Your task to perform on an android device: Is it going to rain this weekend? Image 0: 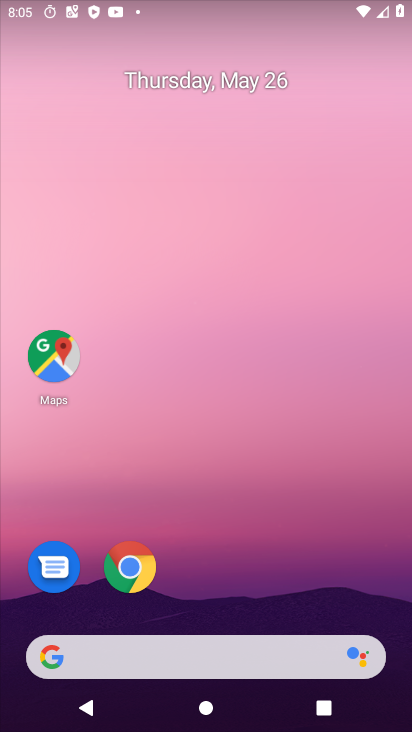
Step 0: click (57, 658)
Your task to perform on an android device: Is it going to rain this weekend? Image 1: 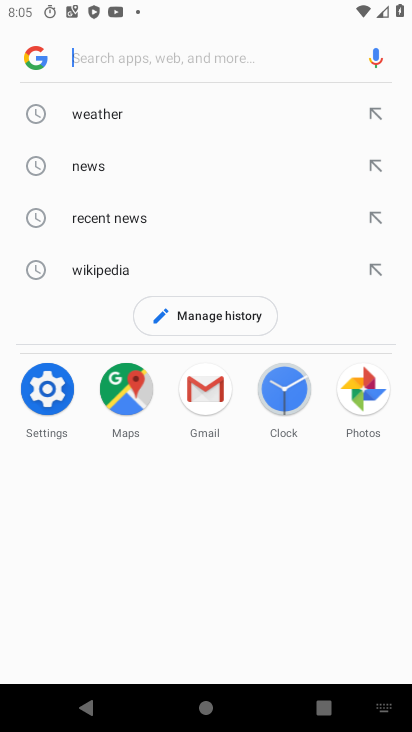
Step 1: click (103, 113)
Your task to perform on an android device: Is it going to rain this weekend? Image 2: 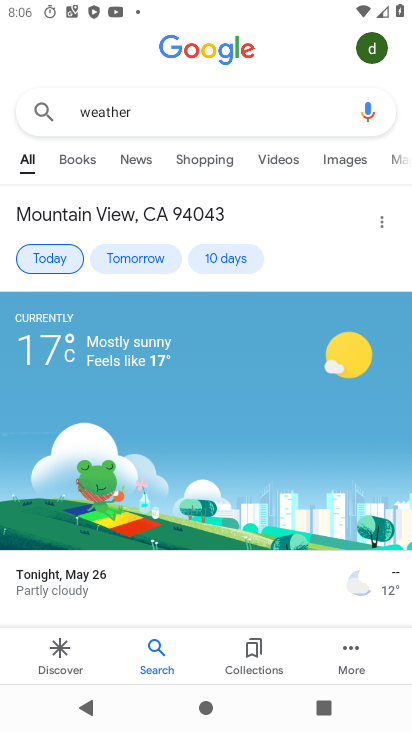
Step 2: click (226, 258)
Your task to perform on an android device: Is it going to rain this weekend? Image 3: 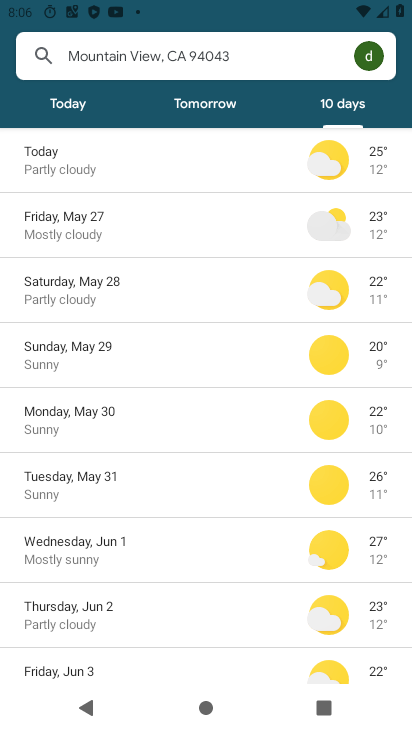
Step 3: click (128, 287)
Your task to perform on an android device: Is it going to rain this weekend? Image 4: 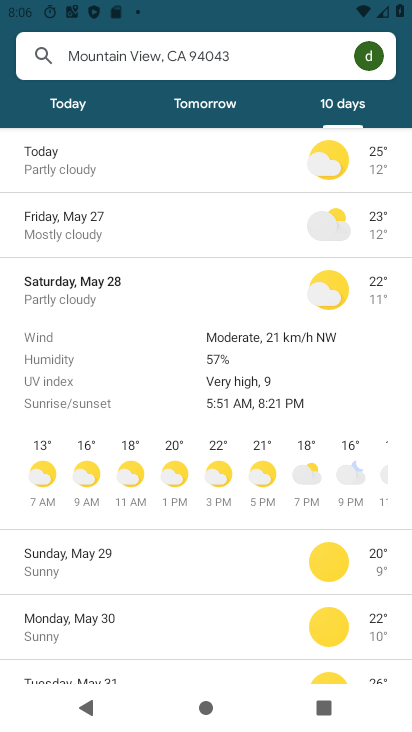
Step 4: task complete